Your task to perform on an android device: check battery use Image 0: 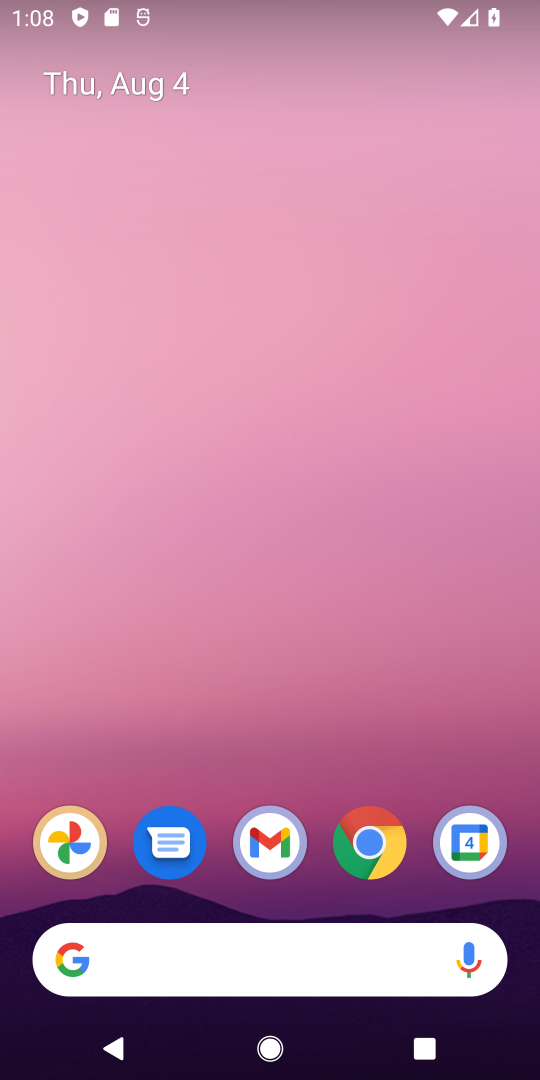
Step 0: drag from (236, 775) to (204, 123)
Your task to perform on an android device: check battery use Image 1: 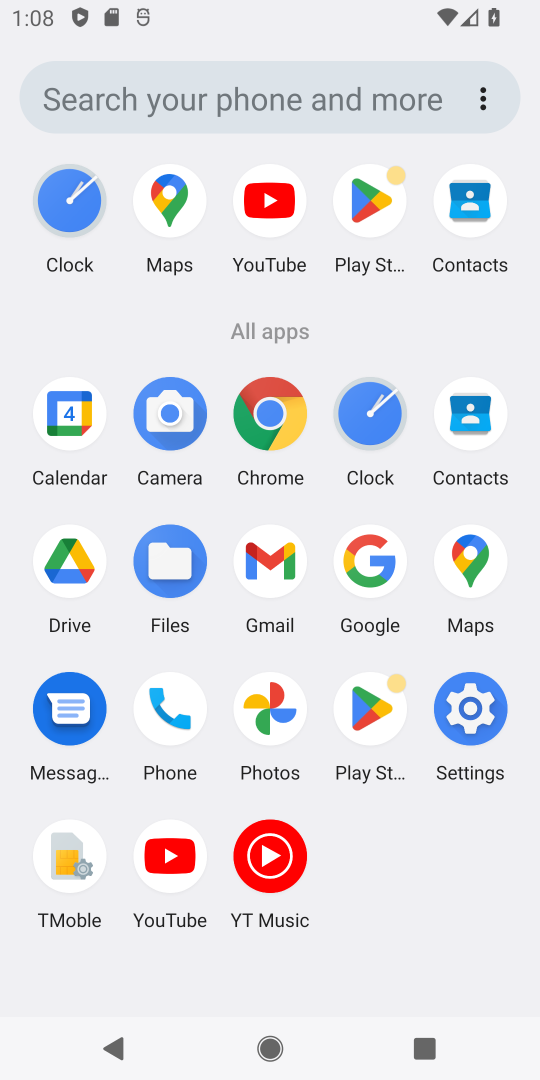
Step 1: click (482, 675)
Your task to perform on an android device: check battery use Image 2: 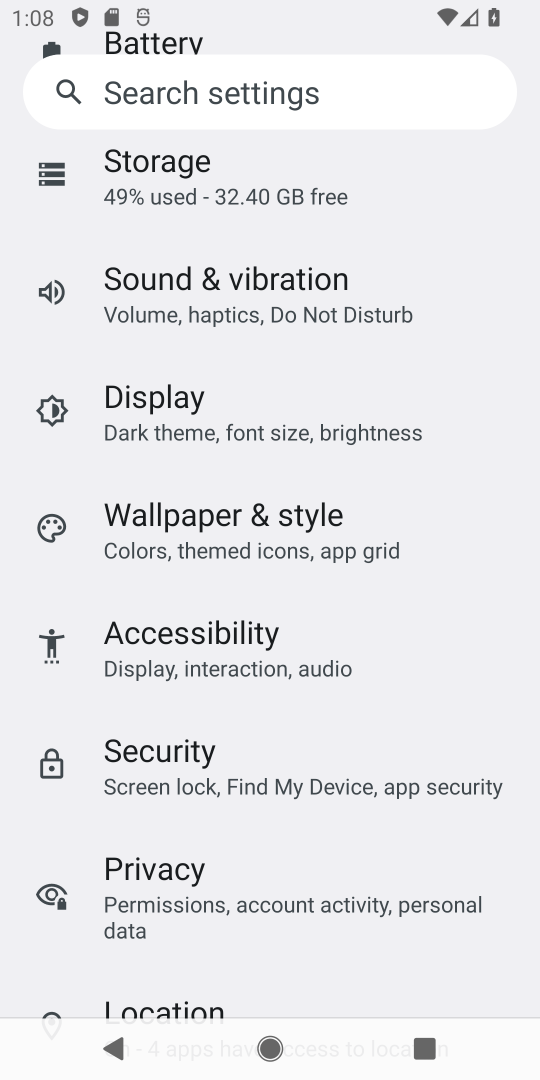
Step 2: drag from (283, 254) to (396, 740)
Your task to perform on an android device: check battery use Image 3: 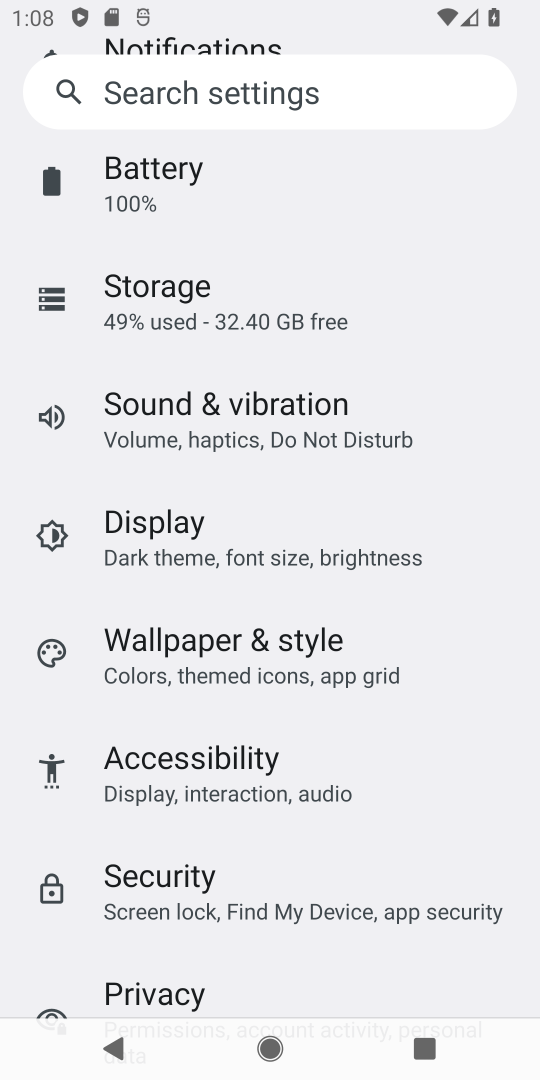
Step 3: click (171, 159)
Your task to perform on an android device: check battery use Image 4: 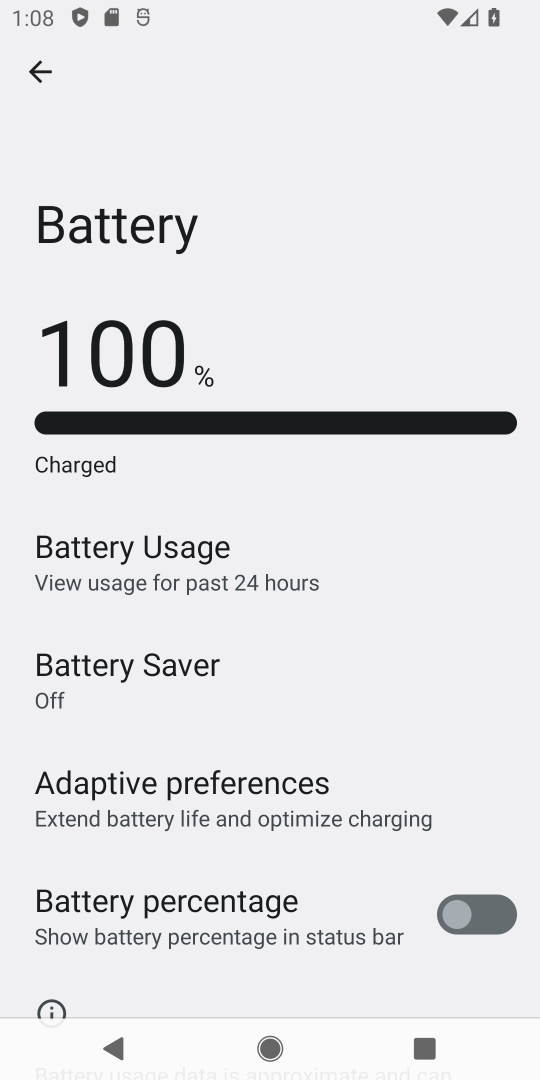
Step 4: click (370, 582)
Your task to perform on an android device: check battery use Image 5: 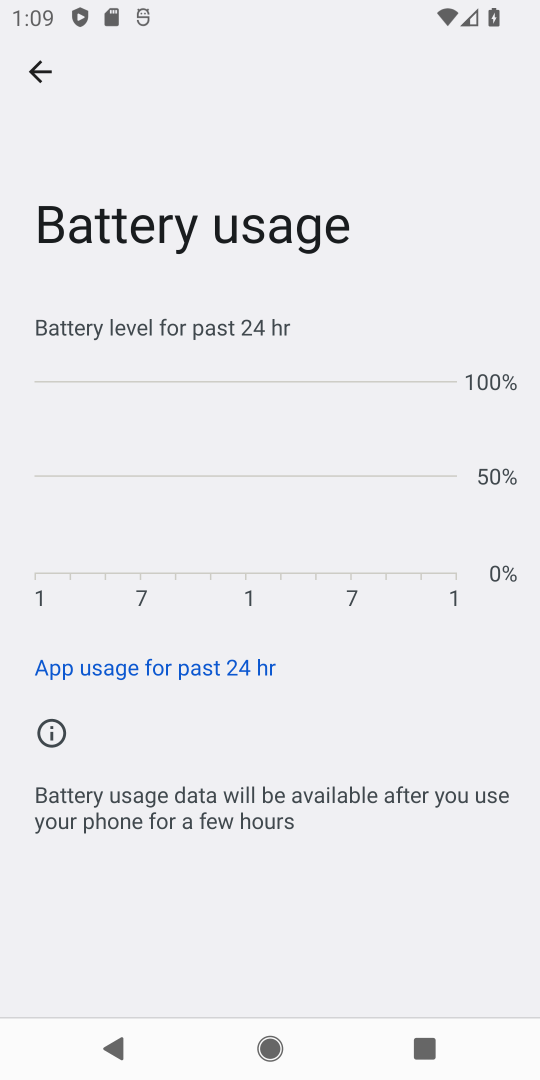
Step 5: task complete